Your task to perform on an android device: Open the phone app and click the voicemail tab. Image 0: 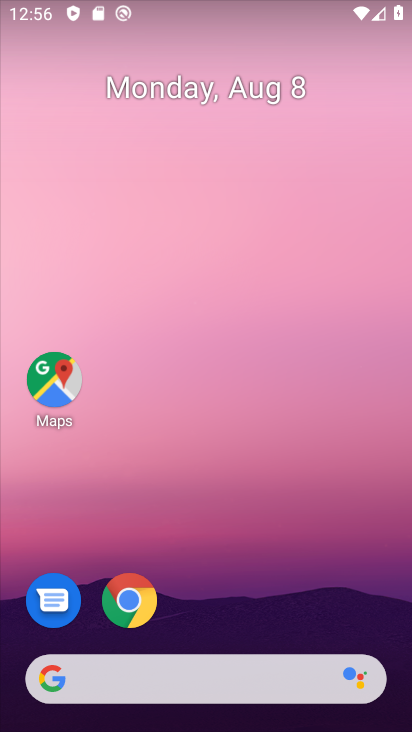
Step 0: press home button
Your task to perform on an android device: Open the phone app and click the voicemail tab. Image 1: 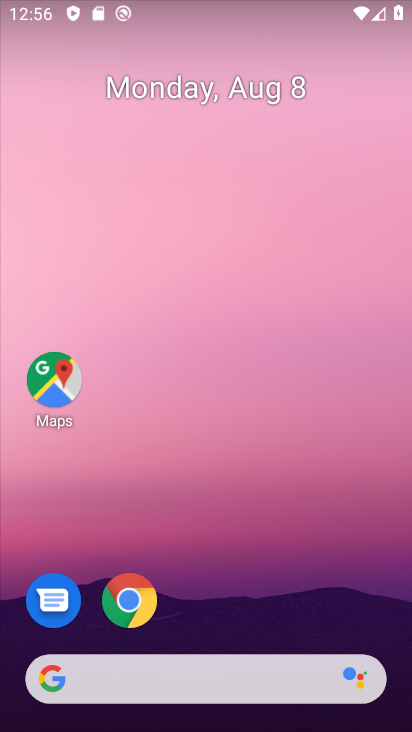
Step 1: press home button
Your task to perform on an android device: Open the phone app and click the voicemail tab. Image 2: 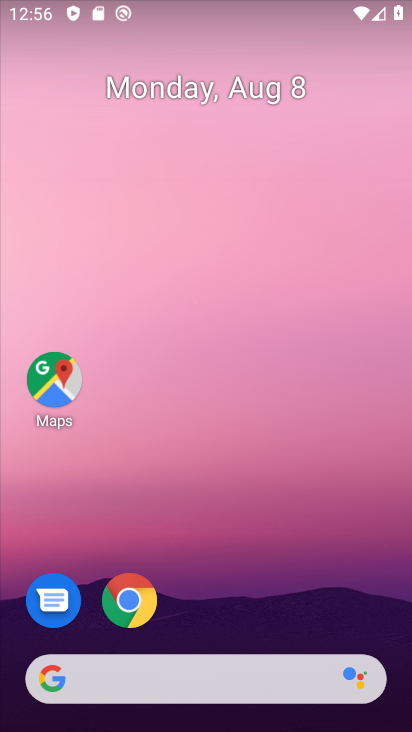
Step 2: drag from (252, 630) to (258, 90)
Your task to perform on an android device: Open the phone app and click the voicemail tab. Image 3: 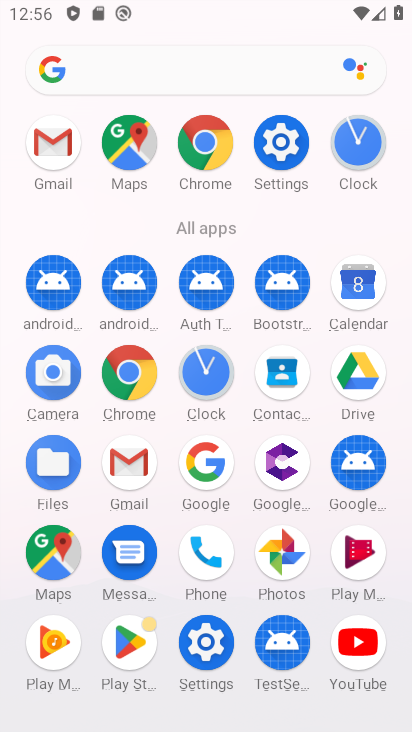
Step 3: click (205, 546)
Your task to perform on an android device: Open the phone app and click the voicemail tab. Image 4: 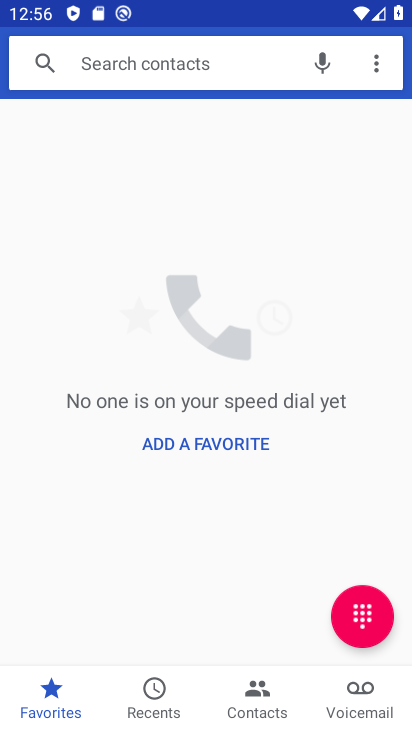
Step 4: click (358, 723)
Your task to perform on an android device: Open the phone app and click the voicemail tab. Image 5: 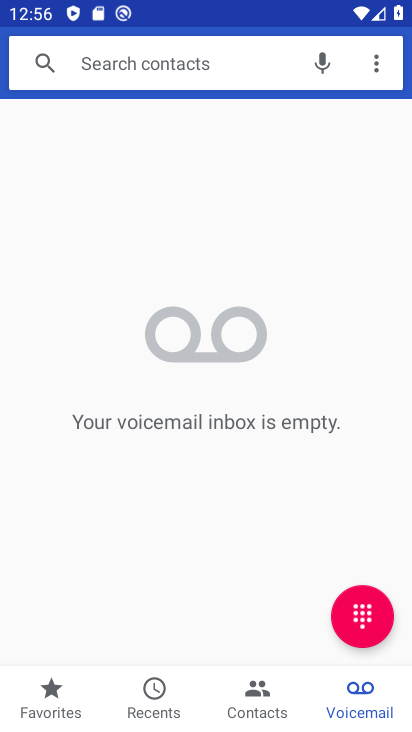
Step 5: task complete